Your task to perform on an android device: Open wifi settings Image 0: 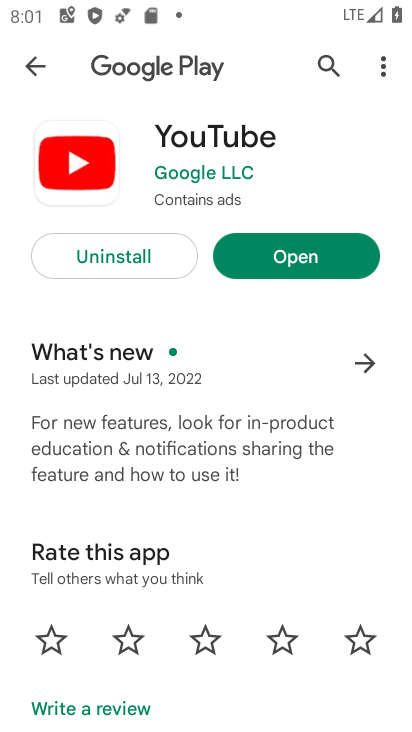
Step 0: press home button
Your task to perform on an android device: Open wifi settings Image 1: 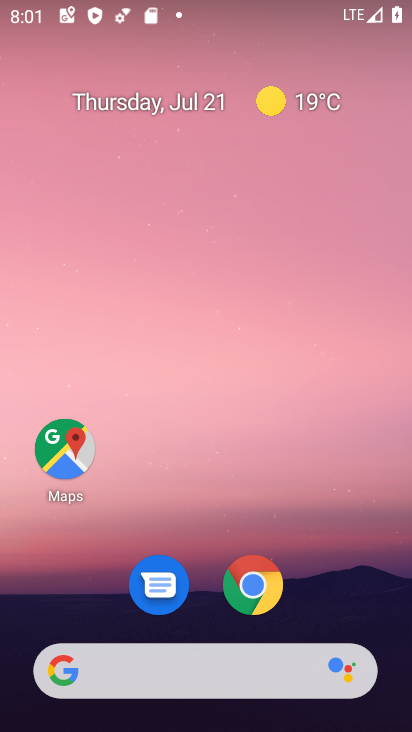
Step 1: drag from (315, 570) to (293, 0)
Your task to perform on an android device: Open wifi settings Image 2: 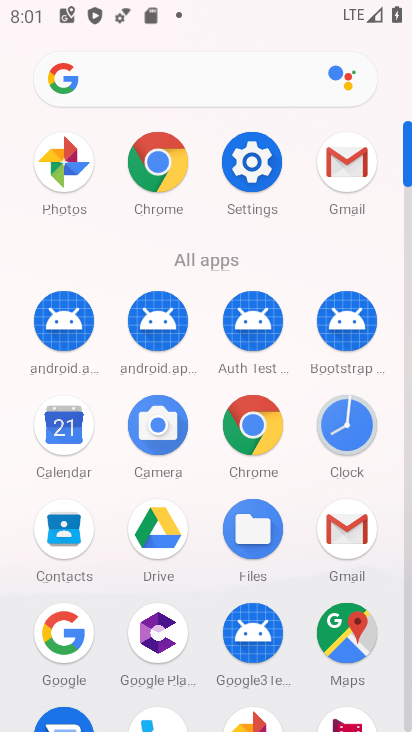
Step 2: click (263, 168)
Your task to perform on an android device: Open wifi settings Image 3: 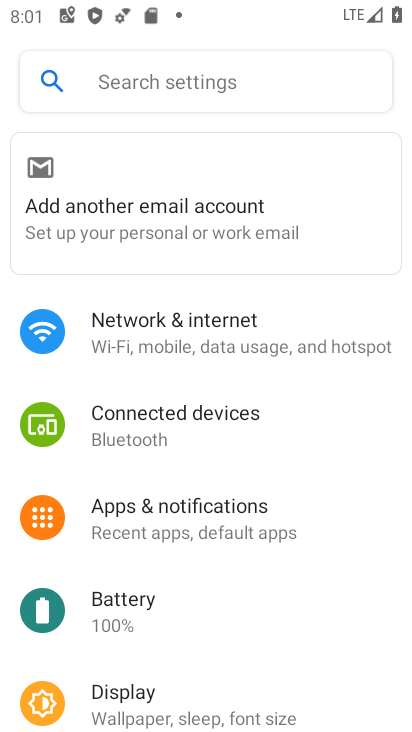
Step 3: click (204, 340)
Your task to perform on an android device: Open wifi settings Image 4: 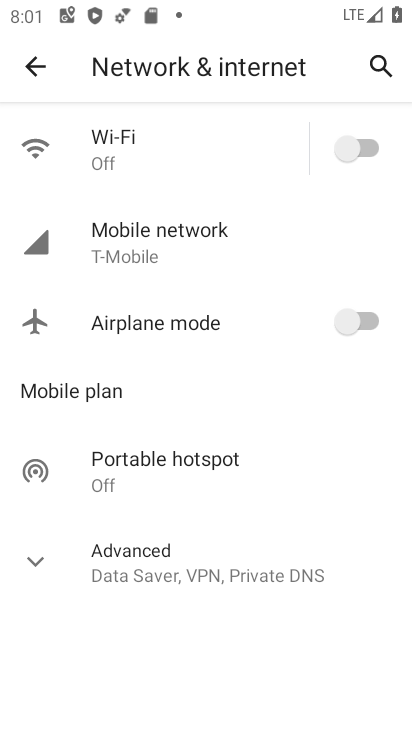
Step 4: click (105, 142)
Your task to perform on an android device: Open wifi settings Image 5: 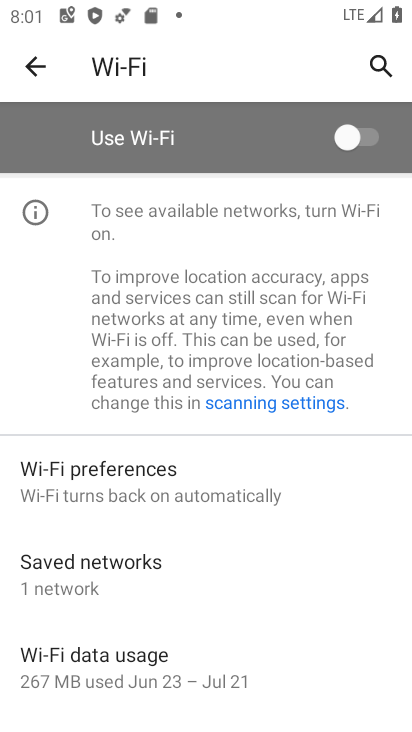
Step 5: task complete